Your task to perform on an android device: turn notification dots on Image 0: 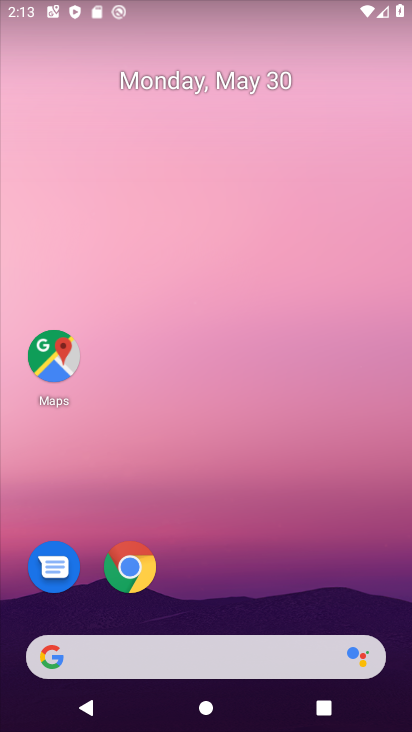
Step 0: drag from (209, 615) to (222, 172)
Your task to perform on an android device: turn notification dots on Image 1: 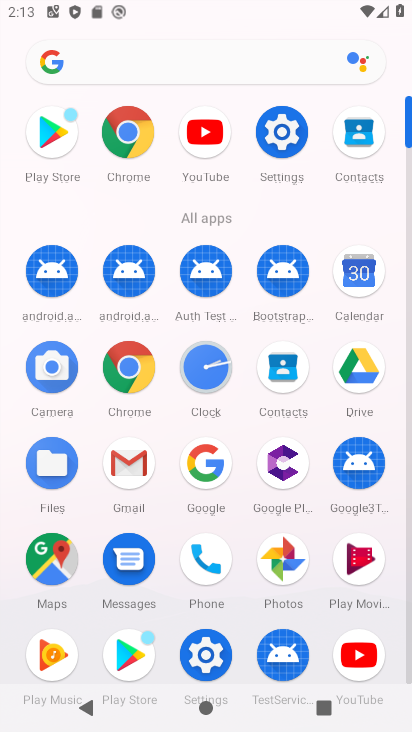
Step 1: click (288, 139)
Your task to perform on an android device: turn notification dots on Image 2: 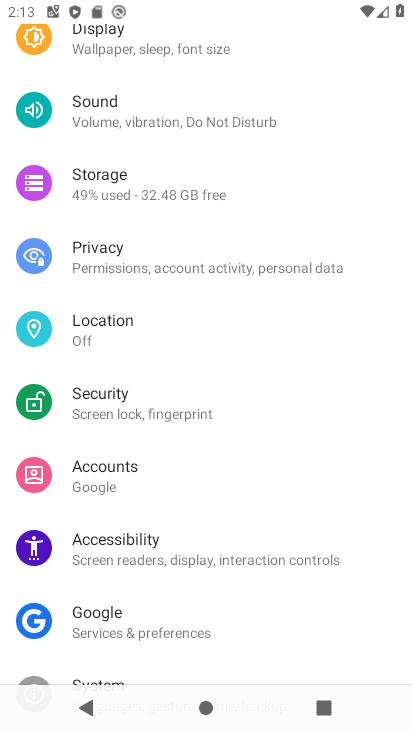
Step 2: drag from (129, 122) to (158, 478)
Your task to perform on an android device: turn notification dots on Image 3: 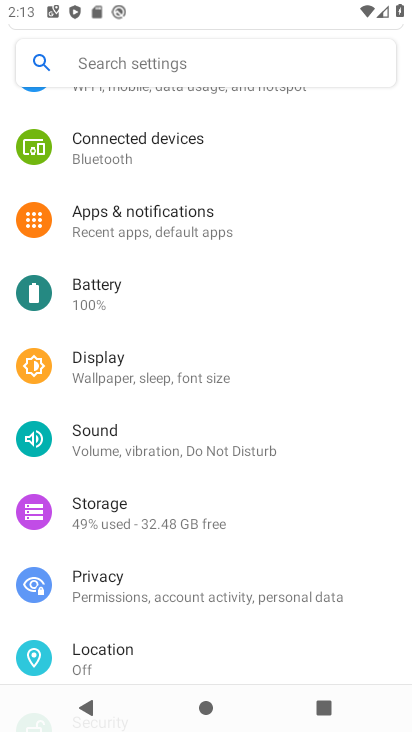
Step 3: click (193, 221)
Your task to perform on an android device: turn notification dots on Image 4: 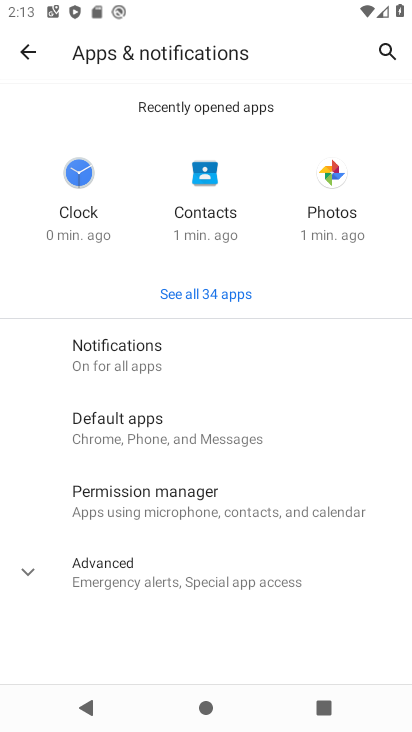
Step 4: click (149, 350)
Your task to perform on an android device: turn notification dots on Image 5: 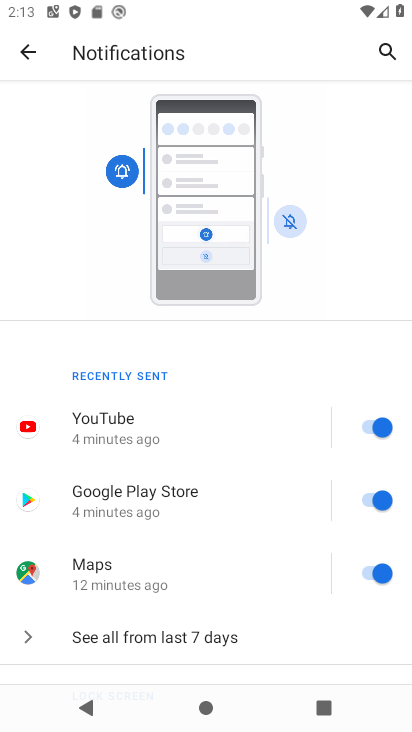
Step 5: drag from (193, 597) to (189, 227)
Your task to perform on an android device: turn notification dots on Image 6: 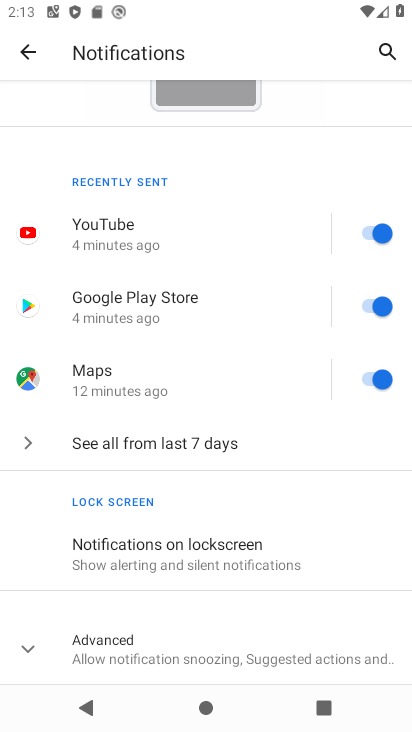
Step 6: click (197, 628)
Your task to perform on an android device: turn notification dots on Image 7: 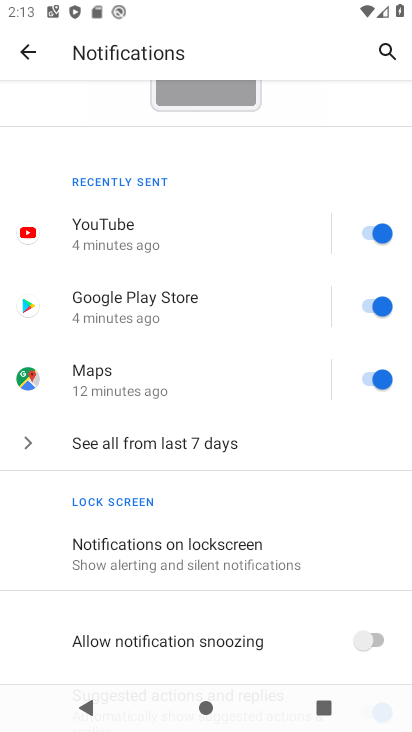
Step 7: task complete